Your task to perform on an android device: install app "Gmail" Image 0: 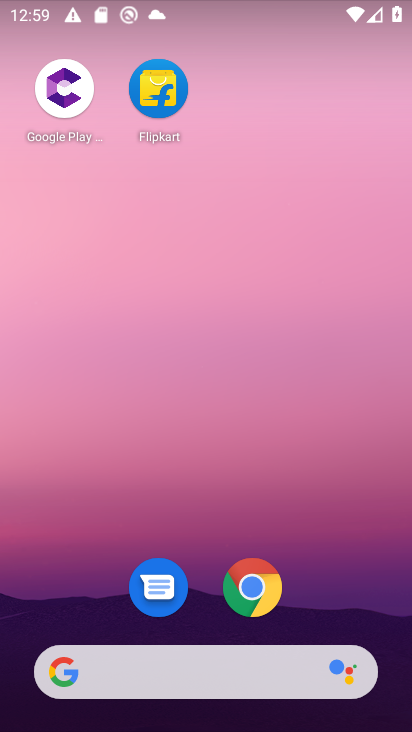
Step 0: drag from (216, 718) to (145, 7)
Your task to perform on an android device: install app "Gmail" Image 1: 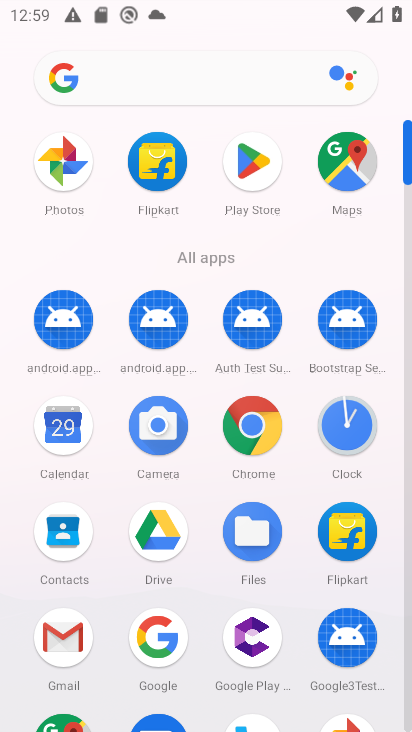
Step 1: click (237, 153)
Your task to perform on an android device: install app "Gmail" Image 2: 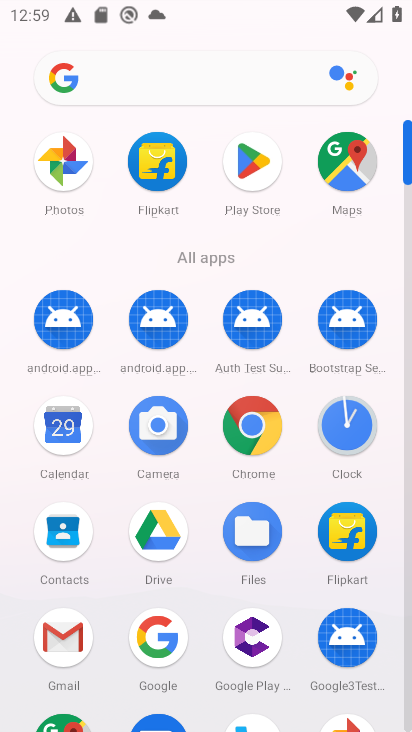
Step 2: click (237, 153)
Your task to perform on an android device: install app "Gmail" Image 3: 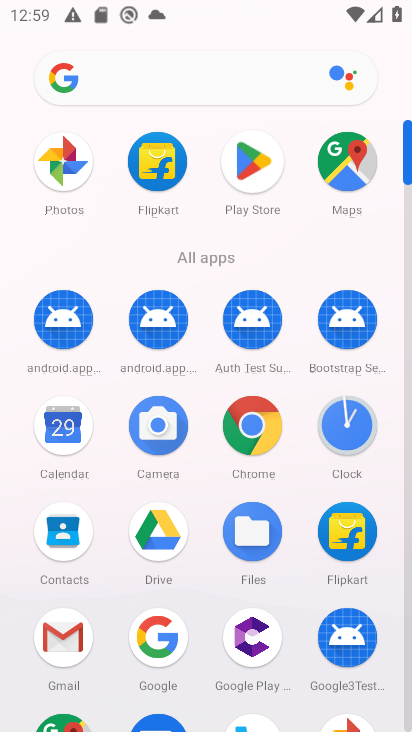
Step 3: click (237, 153)
Your task to perform on an android device: install app "Gmail" Image 4: 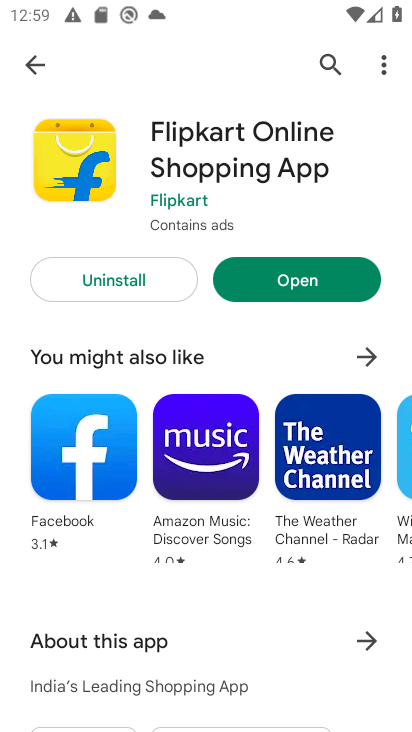
Step 4: click (327, 59)
Your task to perform on an android device: install app "Gmail" Image 5: 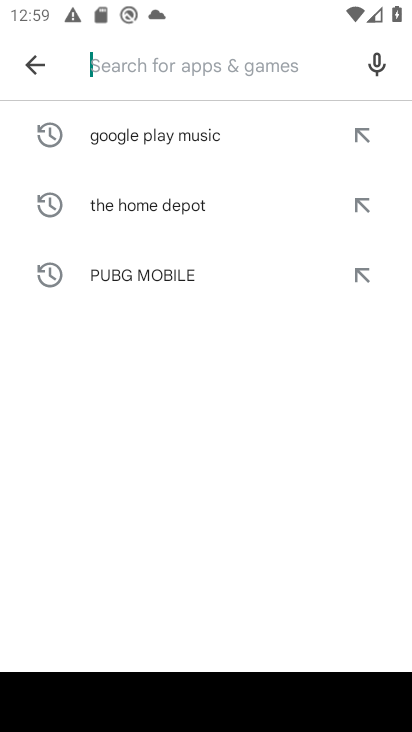
Step 5: type "gmail"
Your task to perform on an android device: install app "Gmail" Image 6: 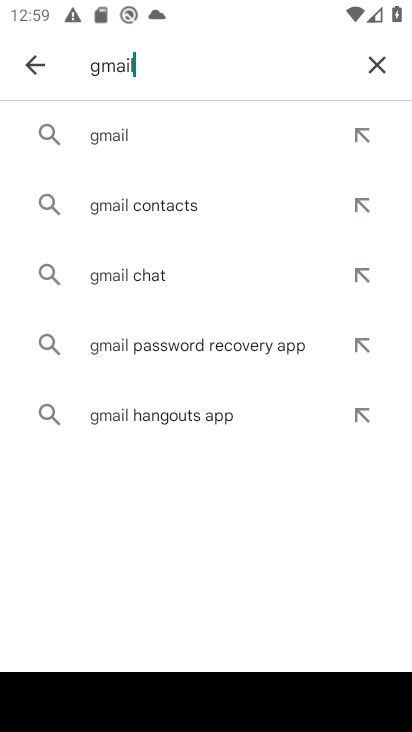
Step 6: click (138, 139)
Your task to perform on an android device: install app "Gmail" Image 7: 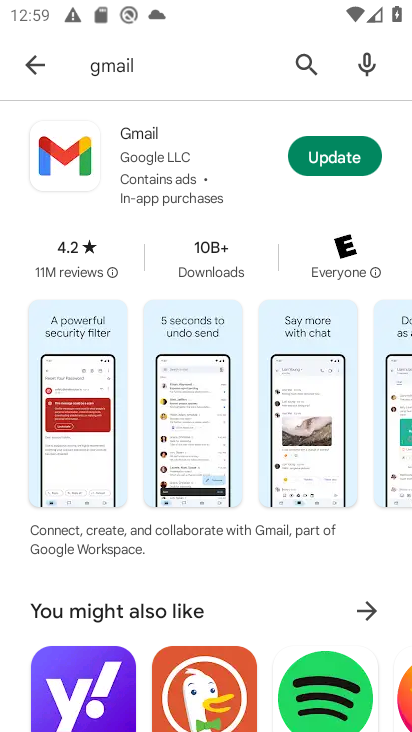
Step 7: task complete